Your task to perform on an android device: Open the map Image 0: 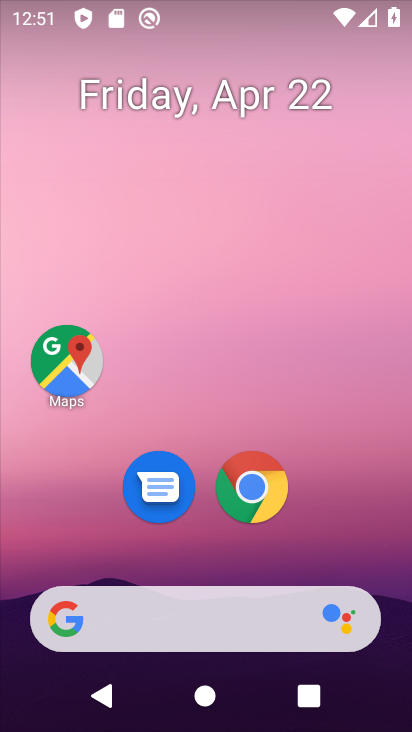
Step 0: click (69, 368)
Your task to perform on an android device: Open the map Image 1: 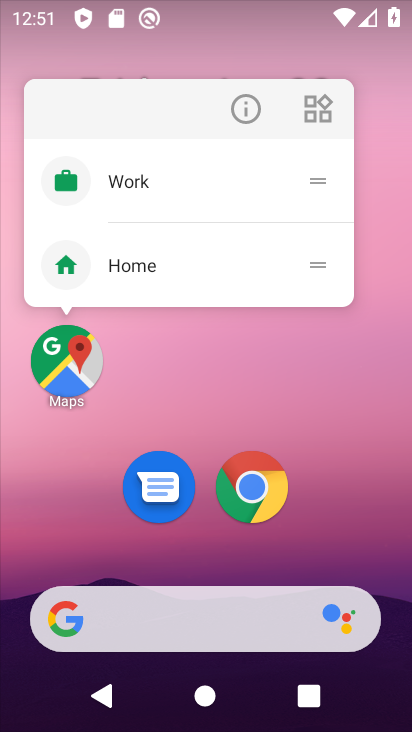
Step 1: click (82, 350)
Your task to perform on an android device: Open the map Image 2: 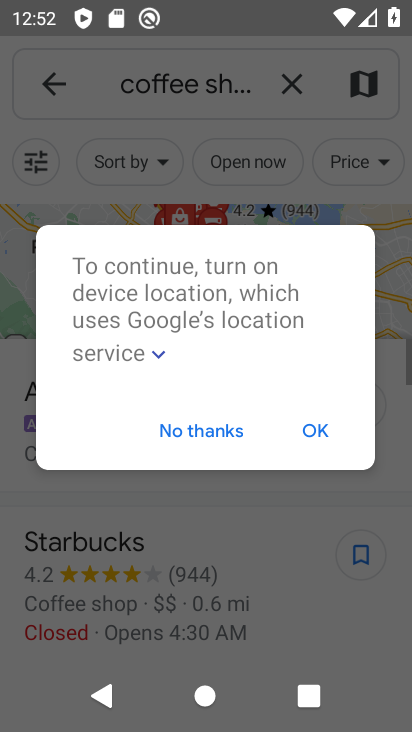
Step 2: click (204, 422)
Your task to perform on an android device: Open the map Image 3: 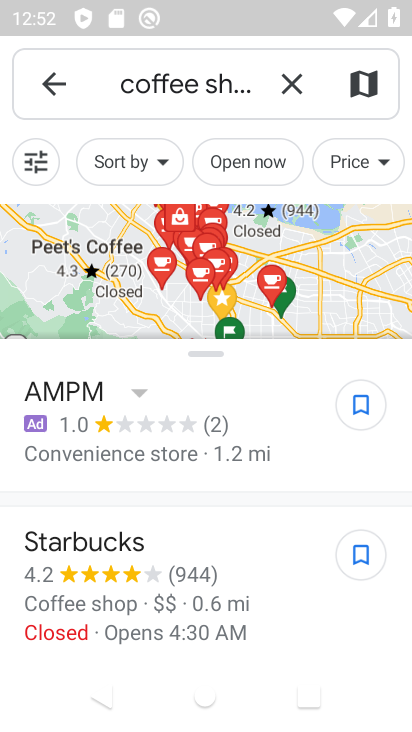
Step 3: task complete